Your task to perform on an android device: Show the shopping cart on target.com. Image 0: 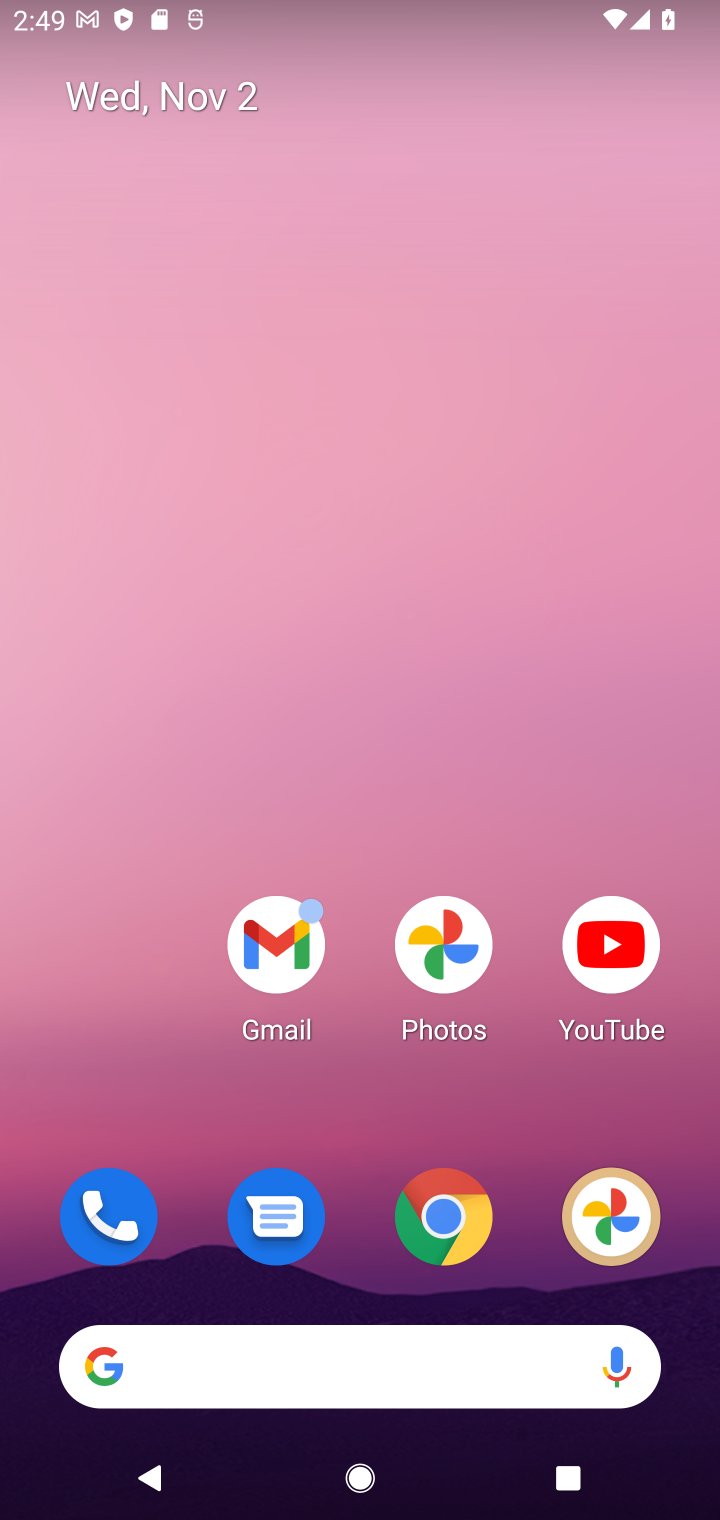
Step 0: click (438, 1201)
Your task to perform on an android device: Show the shopping cart on target.com. Image 1: 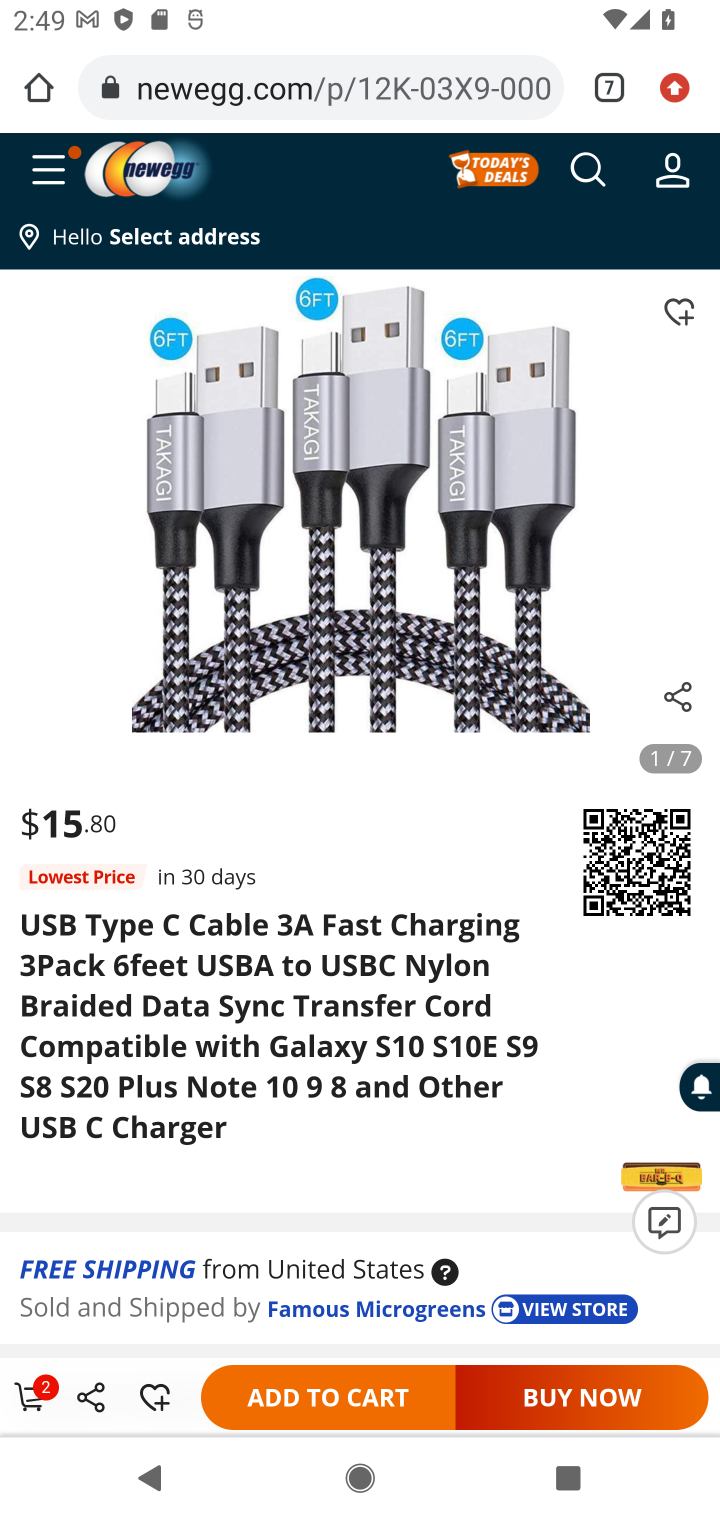
Step 1: click (617, 87)
Your task to perform on an android device: Show the shopping cart on target.com. Image 2: 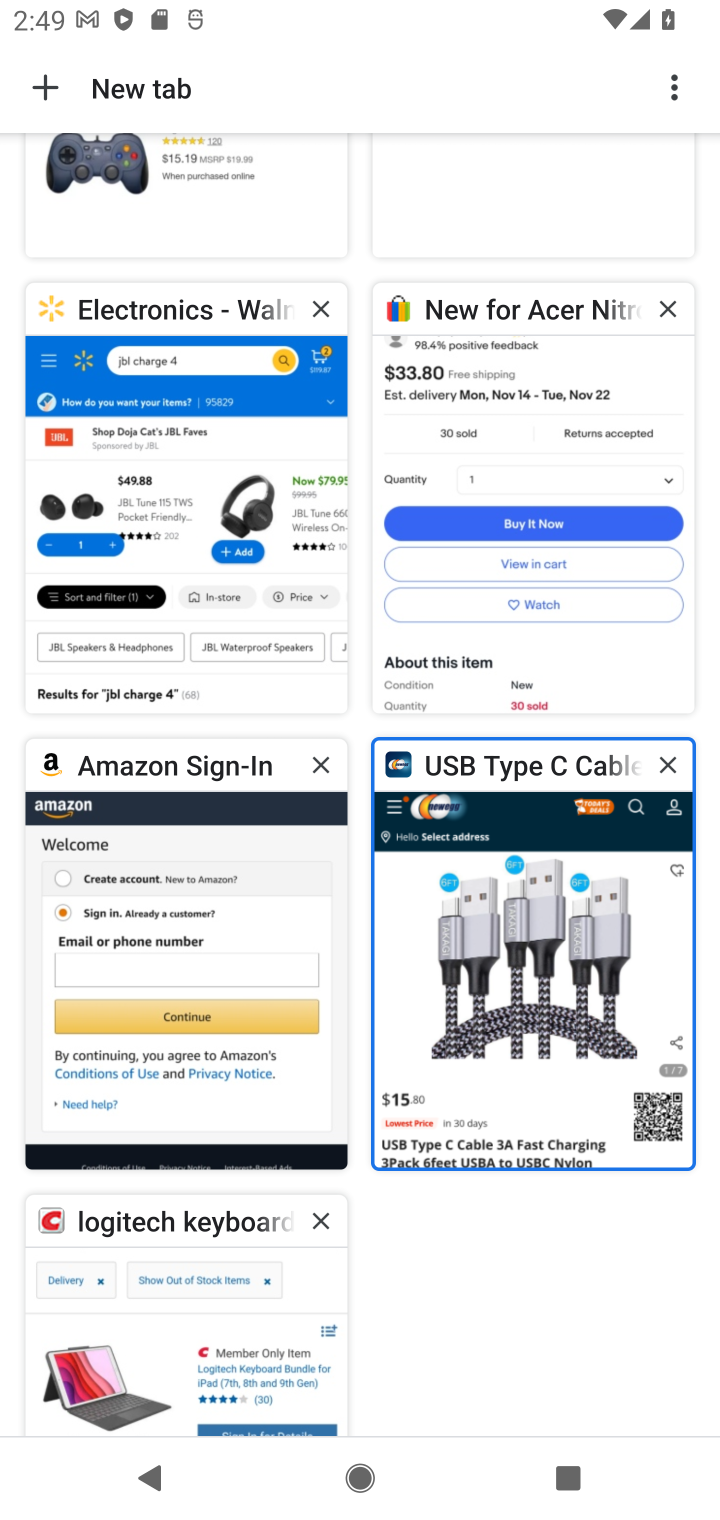
Step 2: drag from (459, 315) to (539, 923)
Your task to perform on an android device: Show the shopping cart on target.com. Image 3: 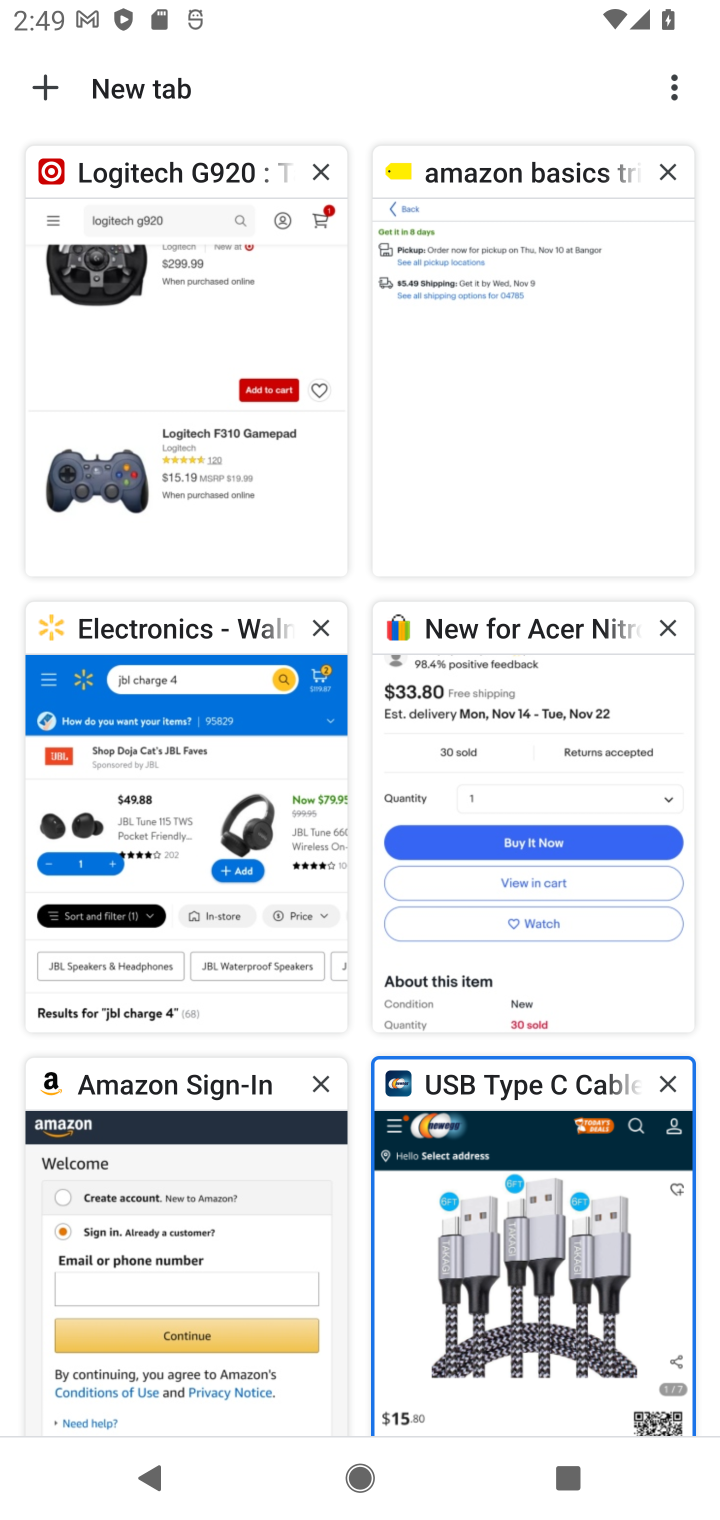
Step 3: click (172, 400)
Your task to perform on an android device: Show the shopping cart on target.com. Image 4: 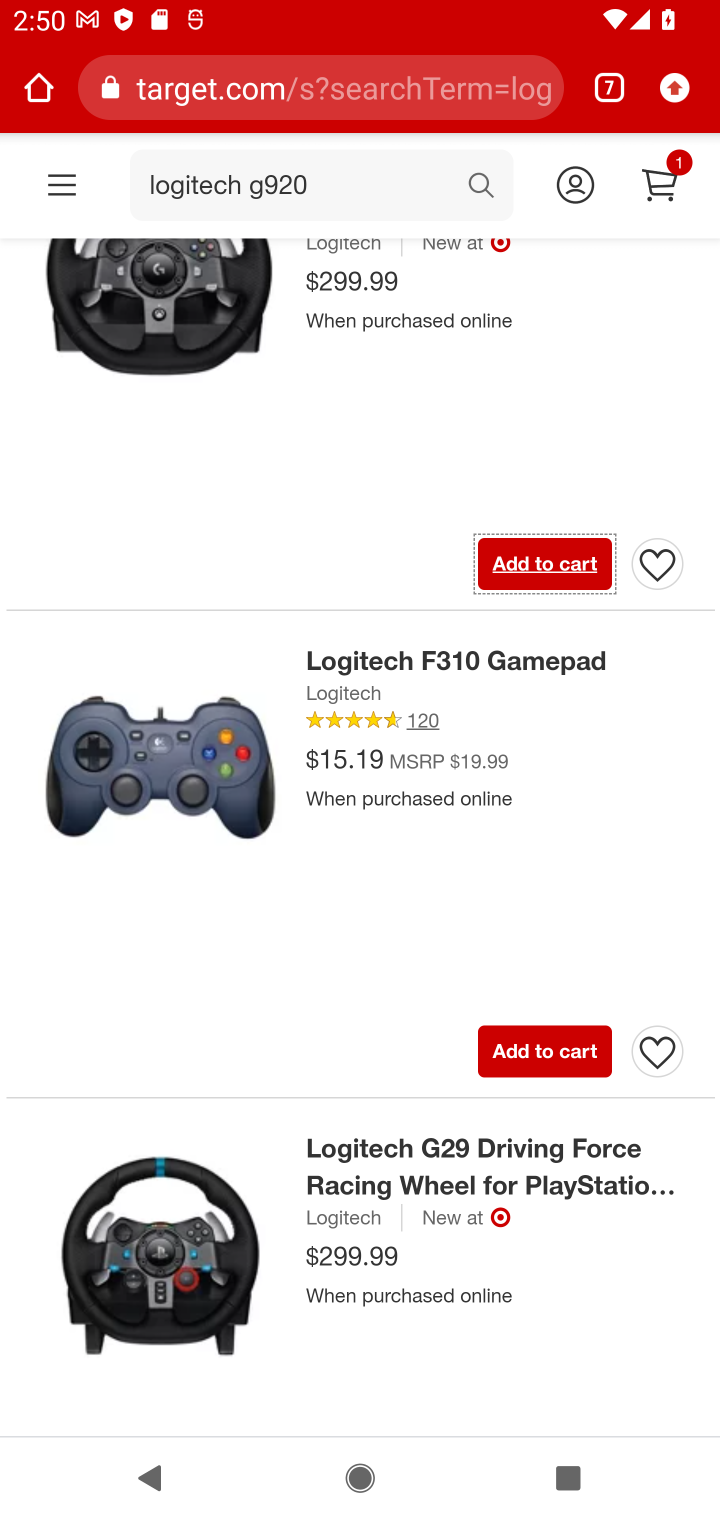
Step 4: click (678, 155)
Your task to perform on an android device: Show the shopping cart on target.com. Image 5: 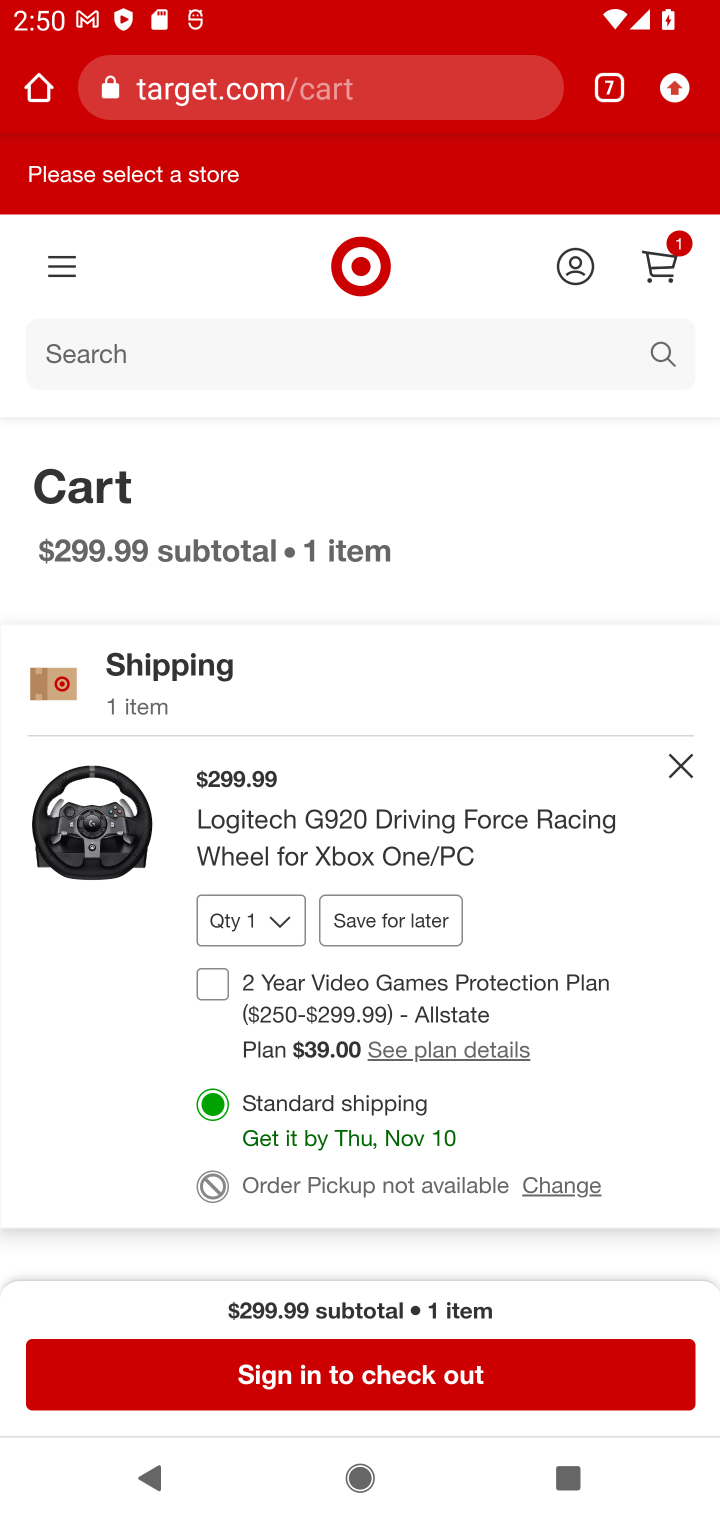
Step 5: click (673, 778)
Your task to perform on an android device: Show the shopping cart on target.com. Image 6: 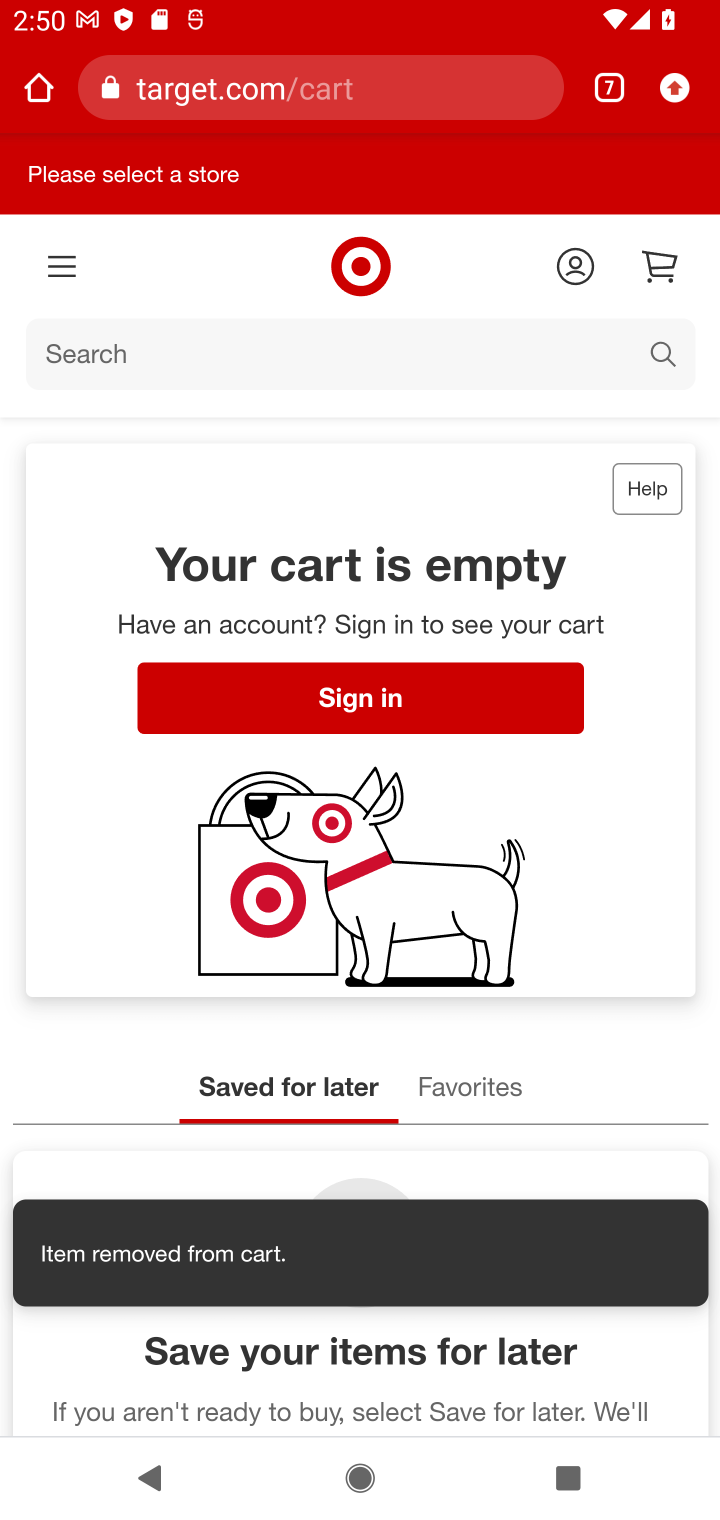
Step 6: task complete